Your task to perform on an android device: Go to internet settings Image 0: 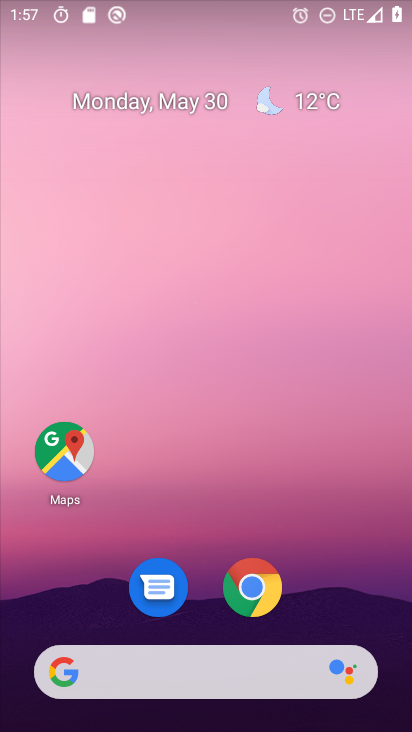
Step 0: drag from (367, 557) to (328, 120)
Your task to perform on an android device: Go to internet settings Image 1: 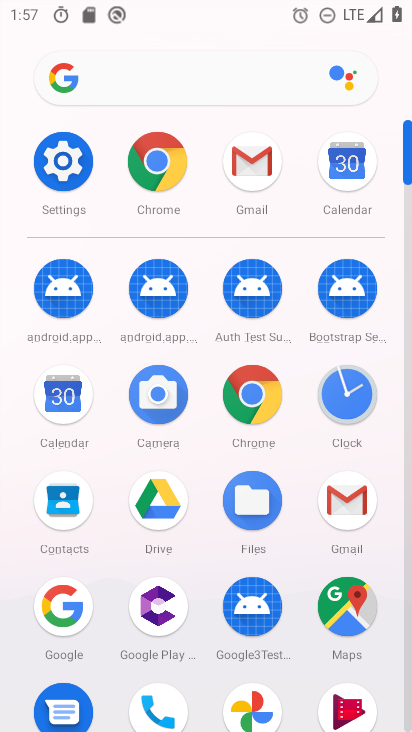
Step 1: click (57, 151)
Your task to perform on an android device: Go to internet settings Image 2: 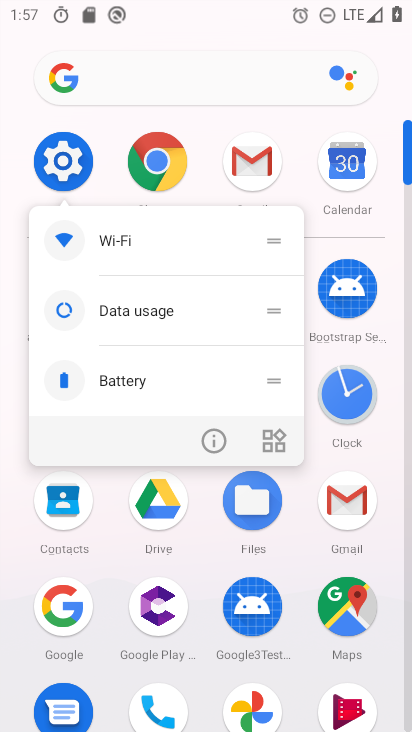
Step 2: click (77, 164)
Your task to perform on an android device: Go to internet settings Image 3: 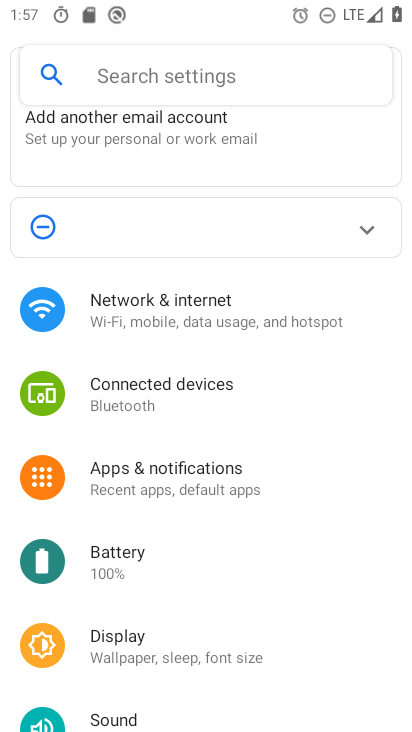
Step 3: click (243, 323)
Your task to perform on an android device: Go to internet settings Image 4: 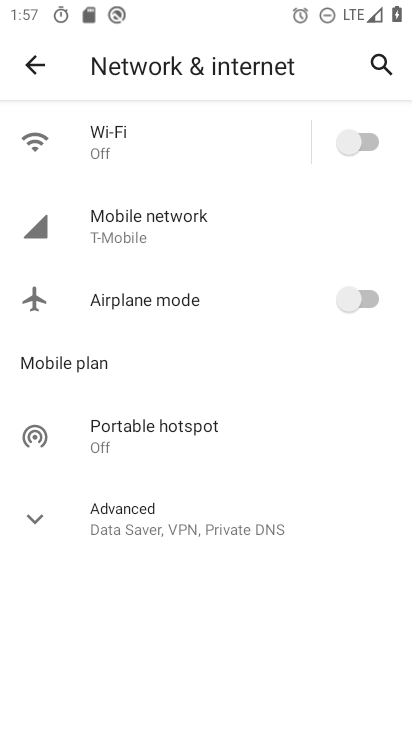
Step 4: click (95, 516)
Your task to perform on an android device: Go to internet settings Image 5: 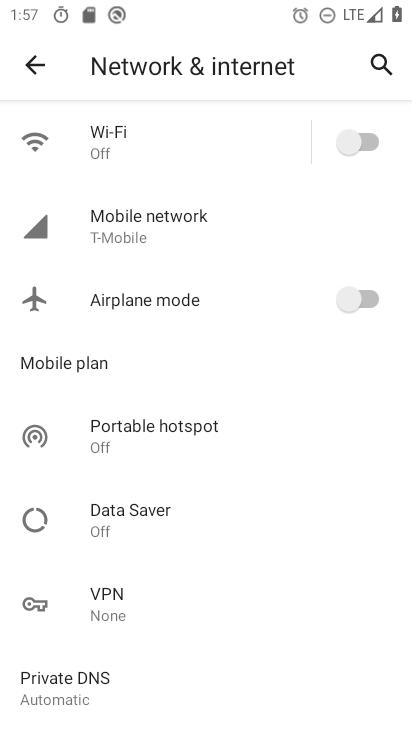
Step 5: task complete